Your task to perform on an android device: empty trash in google photos Image 0: 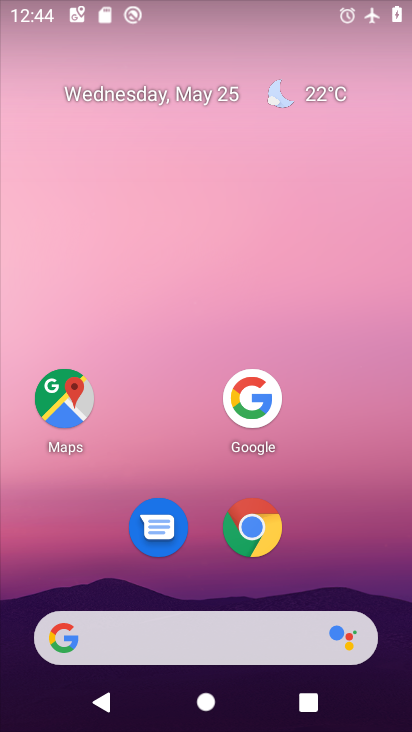
Step 0: press home button
Your task to perform on an android device: empty trash in google photos Image 1: 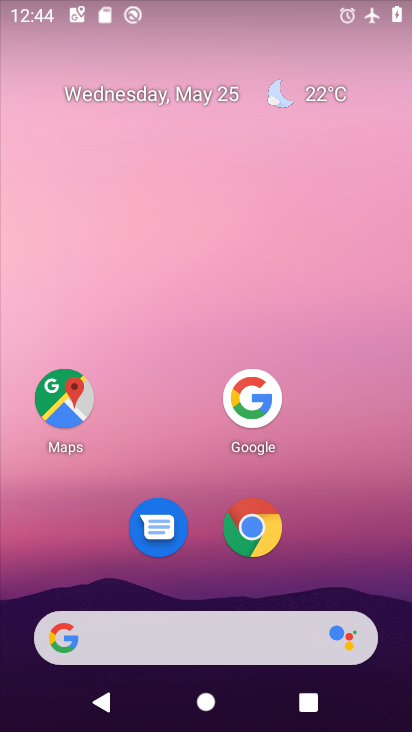
Step 1: drag from (169, 637) to (272, 161)
Your task to perform on an android device: empty trash in google photos Image 2: 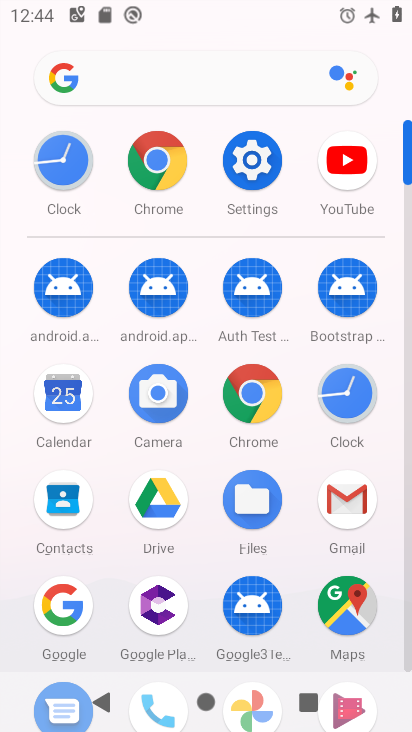
Step 2: drag from (241, 520) to (312, 238)
Your task to perform on an android device: empty trash in google photos Image 3: 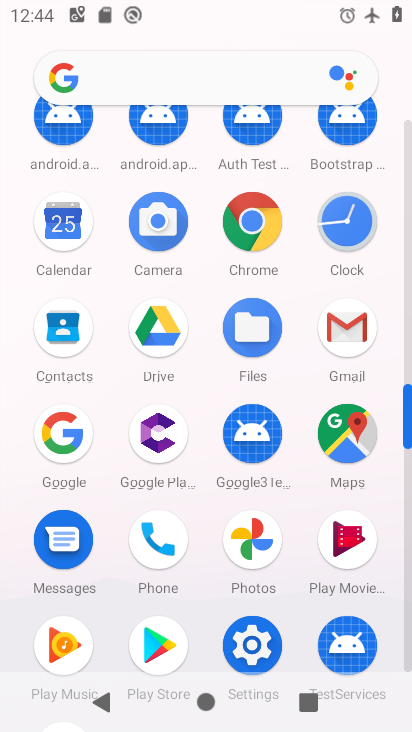
Step 3: click (255, 543)
Your task to perform on an android device: empty trash in google photos Image 4: 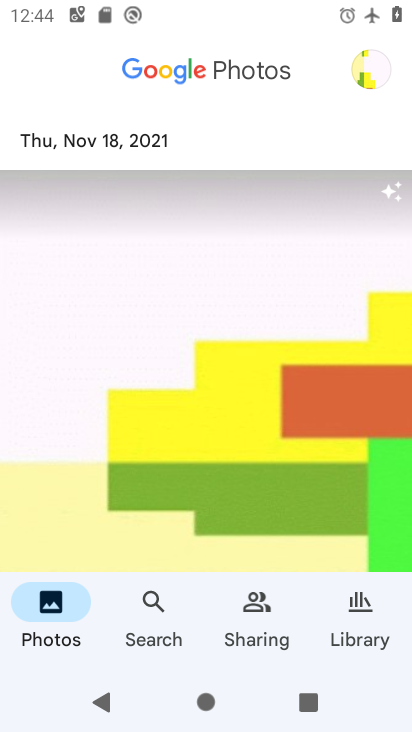
Step 4: click (353, 626)
Your task to perform on an android device: empty trash in google photos Image 5: 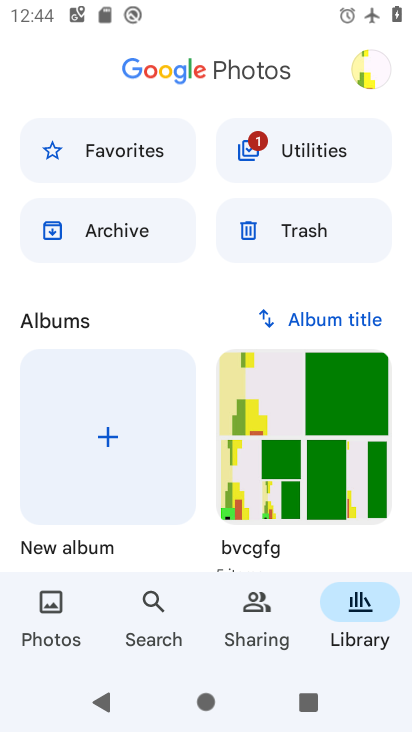
Step 5: click (307, 226)
Your task to perform on an android device: empty trash in google photos Image 6: 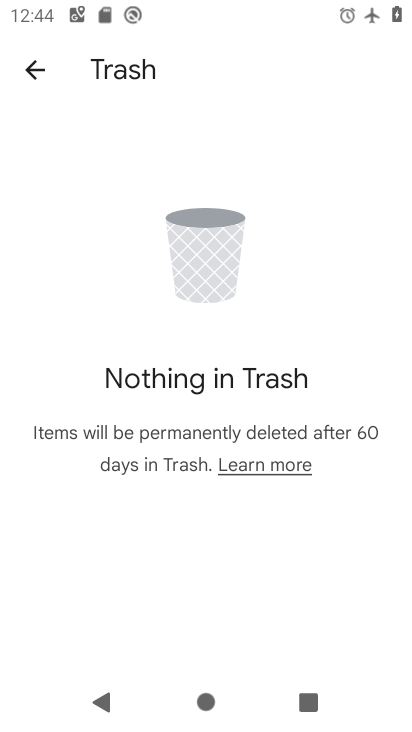
Step 6: task complete